Your task to perform on an android device: turn on the 12-hour format for clock Image 0: 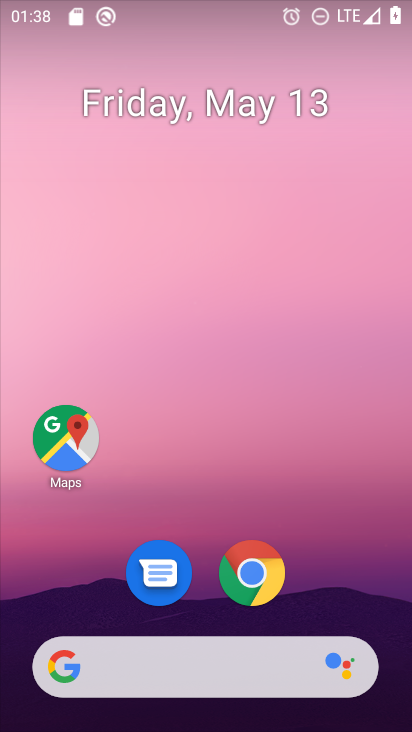
Step 0: drag from (237, 234) to (264, 80)
Your task to perform on an android device: turn on the 12-hour format for clock Image 1: 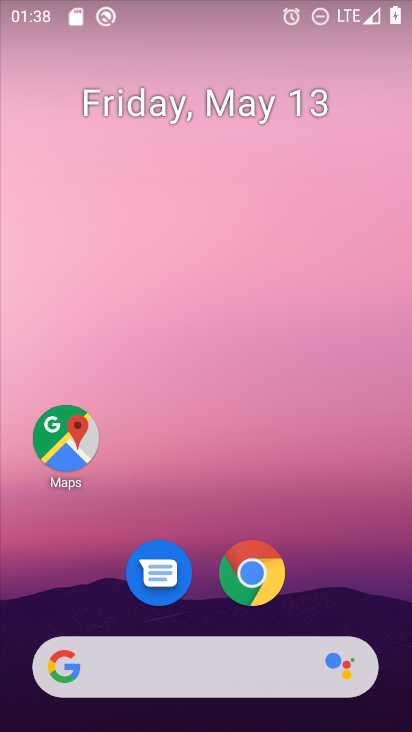
Step 1: click (209, 63)
Your task to perform on an android device: turn on the 12-hour format for clock Image 2: 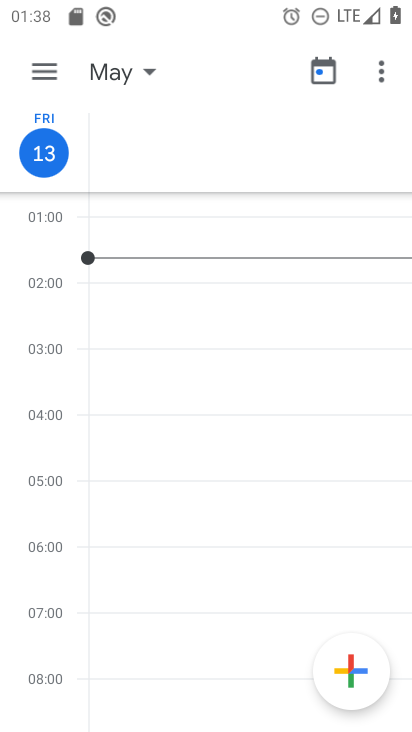
Step 2: press home button
Your task to perform on an android device: turn on the 12-hour format for clock Image 3: 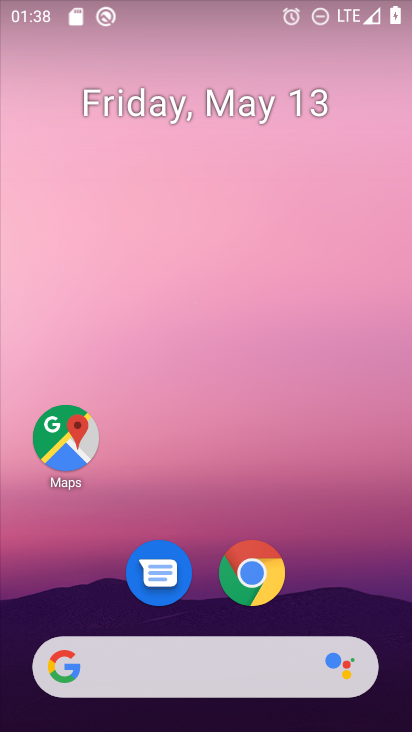
Step 3: drag from (237, 720) to (164, 83)
Your task to perform on an android device: turn on the 12-hour format for clock Image 4: 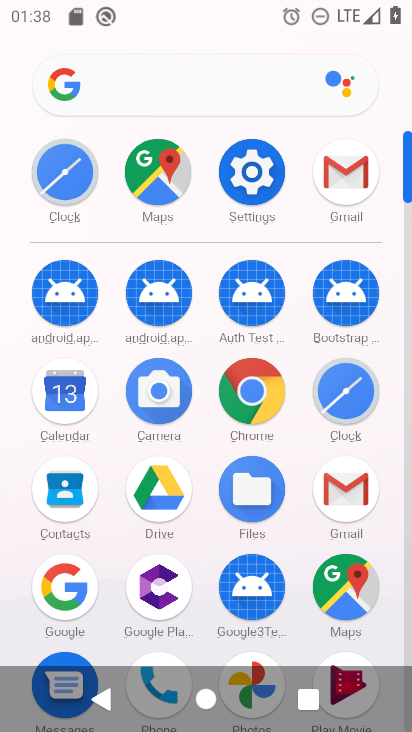
Step 4: click (344, 396)
Your task to perform on an android device: turn on the 12-hour format for clock Image 5: 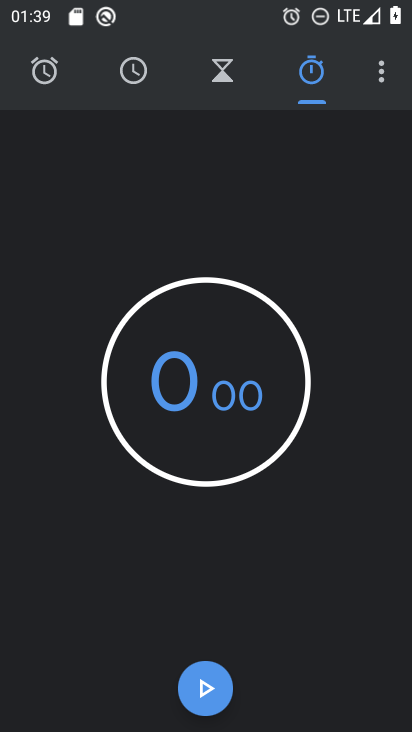
Step 5: click (379, 67)
Your task to perform on an android device: turn on the 12-hour format for clock Image 6: 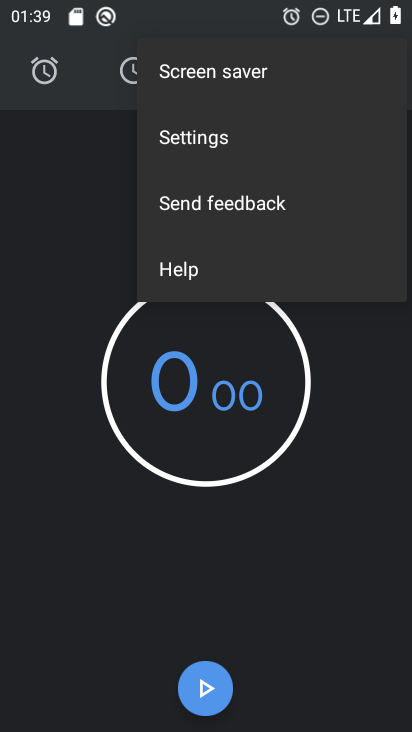
Step 6: click (201, 142)
Your task to perform on an android device: turn on the 12-hour format for clock Image 7: 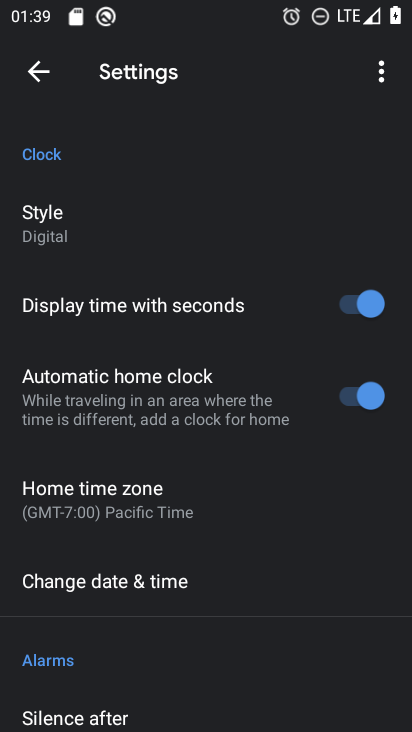
Step 7: click (224, 582)
Your task to perform on an android device: turn on the 12-hour format for clock Image 8: 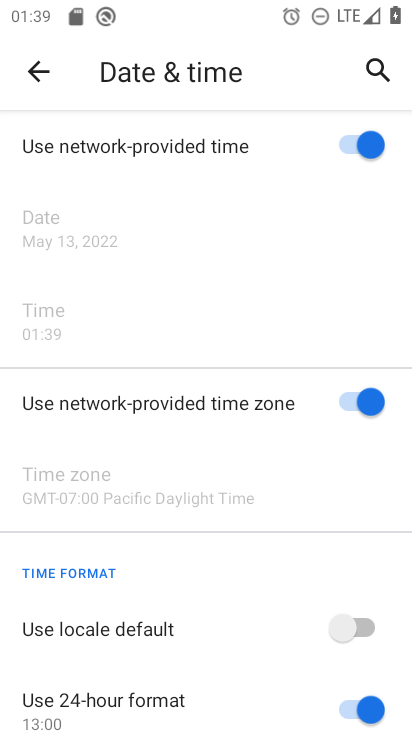
Step 8: click (360, 622)
Your task to perform on an android device: turn on the 12-hour format for clock Image 9: 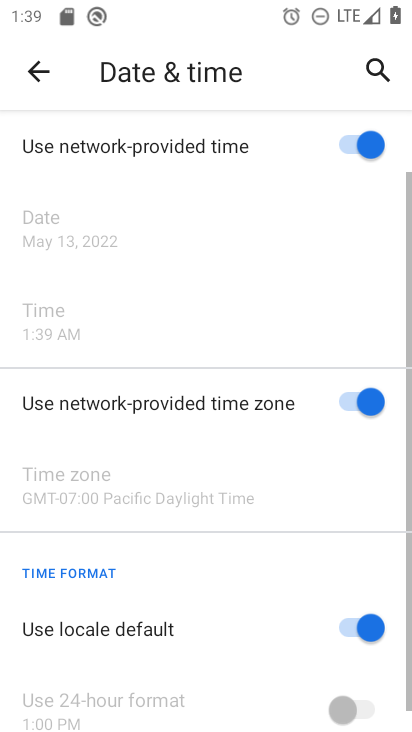
Step 9: click (373, 712)
Your task to perform on an android device: turn on the 12-hour format for clock Image 10: 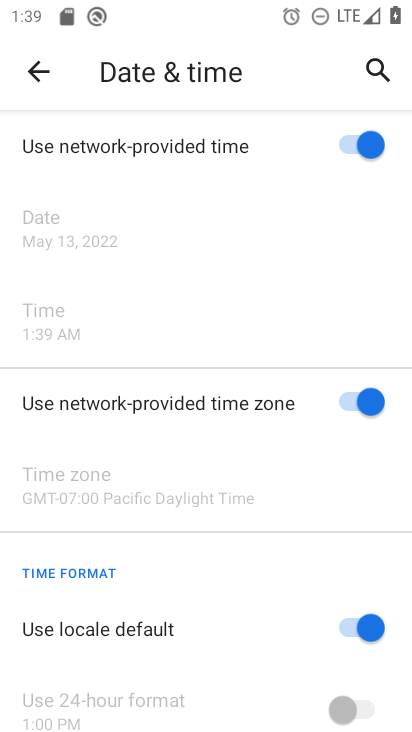
Step 10: task complete